Your task to perform on an android device: turn off notifications in google photos Image 0: 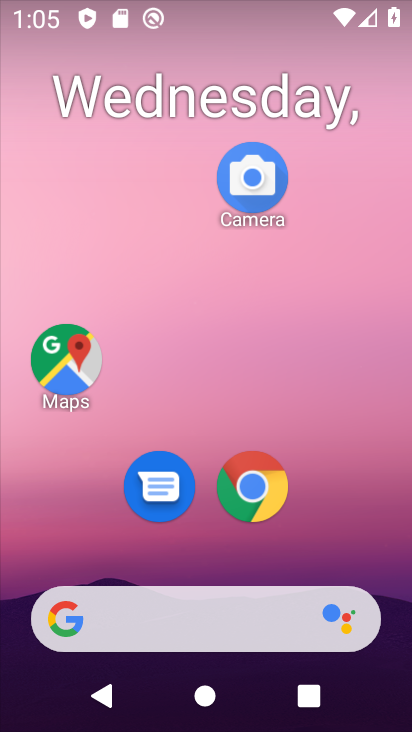
Step 0: drag from (194, 664) to (397, 1)
Your task to perform on an android device: turn off notifications in google photos Image 1: 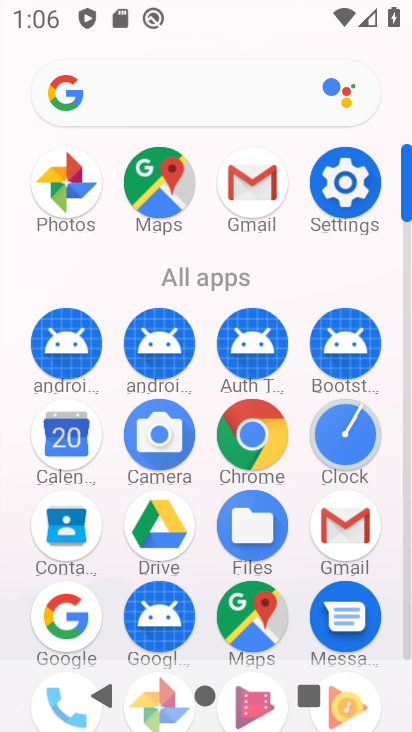
Step 1: drag from (299, 566) to (322, 324)
Your task to perform on an android device: turn off notifications in google photos Image 2: 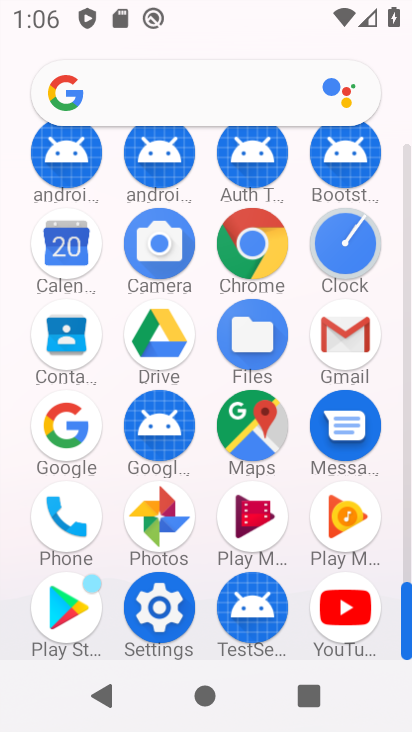
Step 2: click (164, 505)
Your task to perform on an android device: turn off notifications in google photos Image 3: 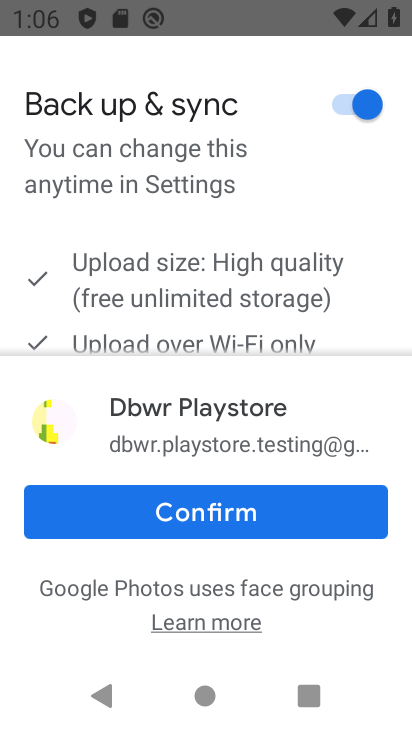
Step 3: click (148, 508)
Your task to perform on an android device: turn off notifications in google photos Image 4: 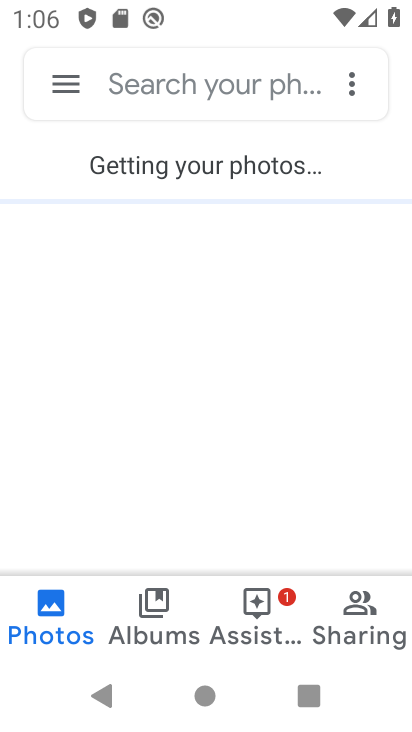
Step 4: click (69, 69)
Your task to perform on an android device: turn off notifications in google photos Image 5: 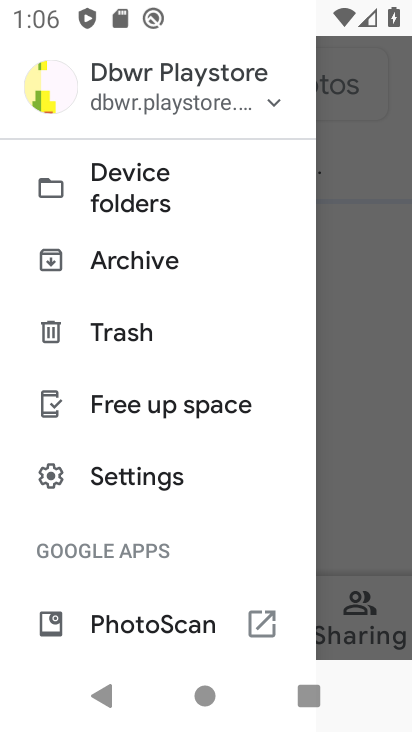
Step 5: click (126, 468)
Your task to perform on an android device: turn off notifications in google photos Image 6: 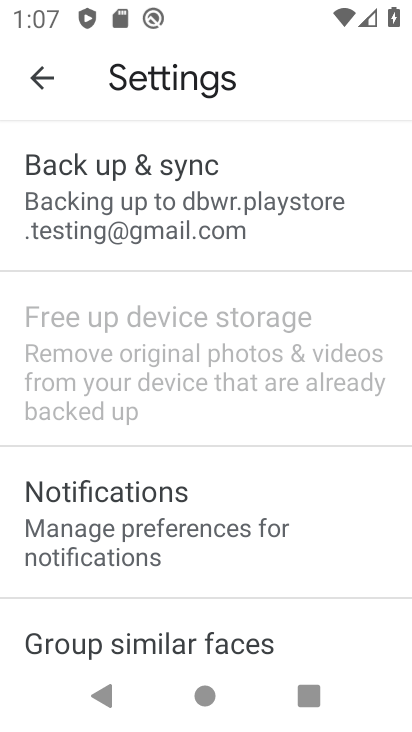
Step 6: click (136, 488)
Your task to perform on an android device: turn off notifications in google photos Image 7: 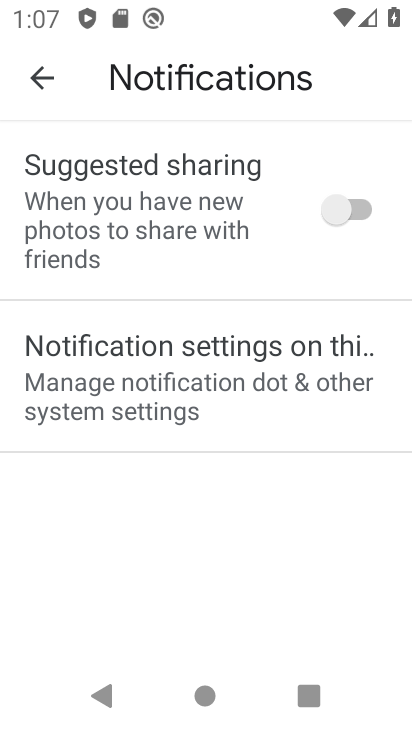
Step 7: click (207, 395)
Your task to perform on an android device: turn off notifications in google photos Image 8: 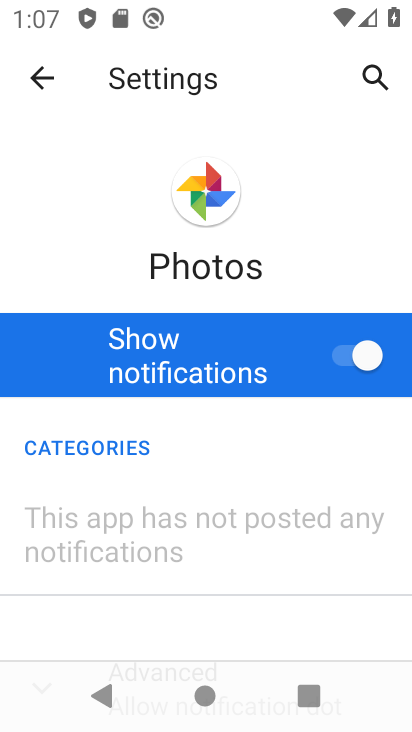
Step 8: click (342, 349)
Your task to perform on an android device: turn off notifications in google photos Image 9: 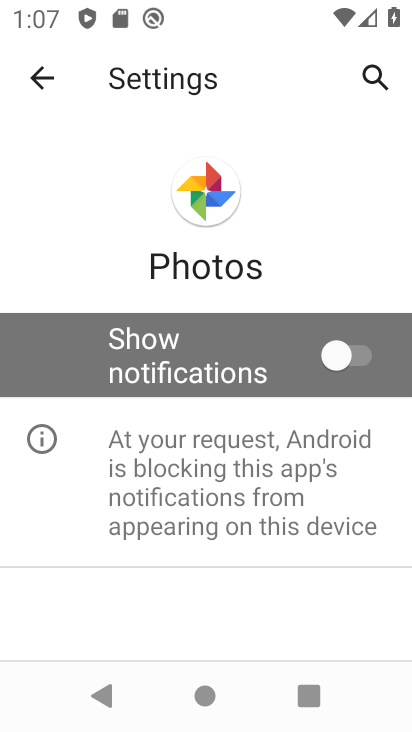
Step 9: task complete